Your task to perform on an android device: choose inbox layout in the gmail app Image 0: 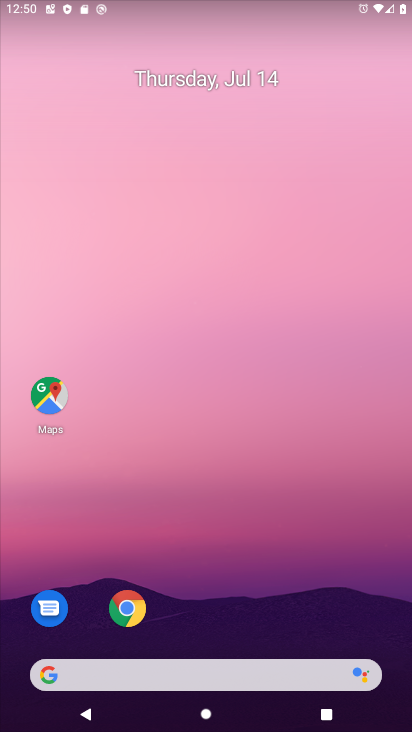
Step 0: drag from (202, 683) to (221, 203)
Your task to perform on an android device: choose inbox layout in the gmail app Image 1: 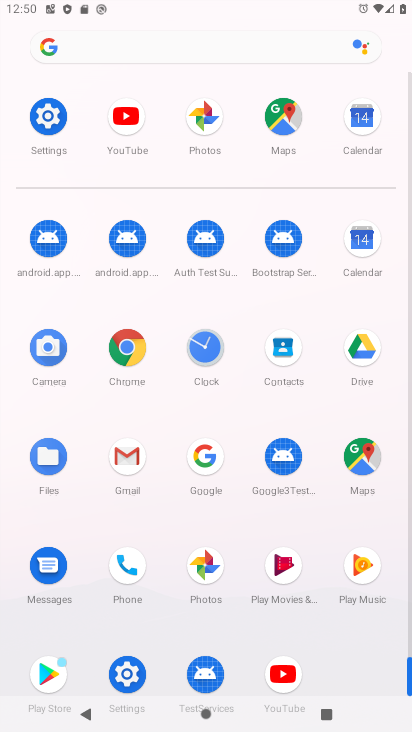
Step 1: click (128, 455)
Your task to perform on an android device: choose inbox layout in the gmail app Image 2: 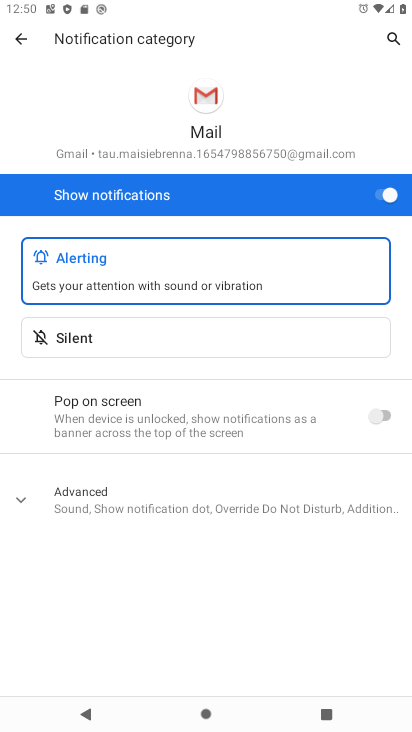
Step 2: press back button
Your task to perform on an android device: choose inbox layout in the gmail app Image 3: 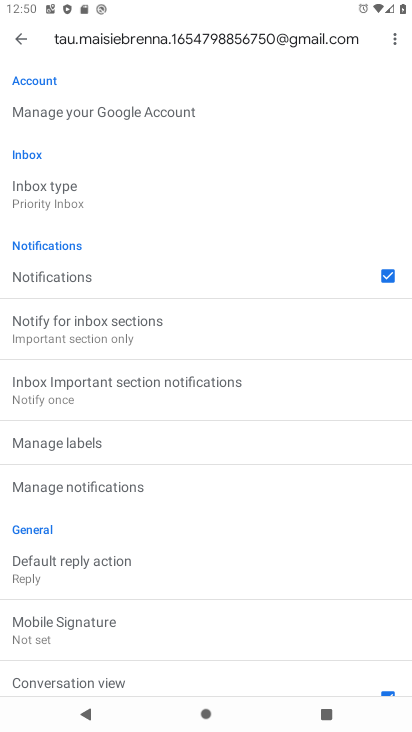
Step 3: click (50, 192)
Your task to perform on an android device: choose inbox layout in the gmail app Image 4: 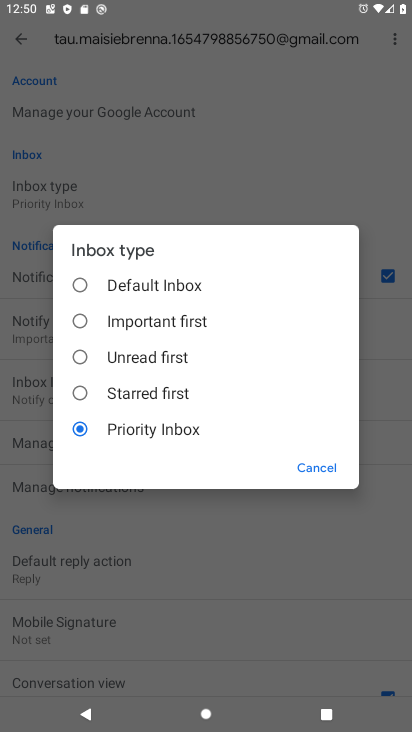
Step 4: click (83, 396)
Your task to perform on an android device: choose inbox layout in the gmail app Image 5: 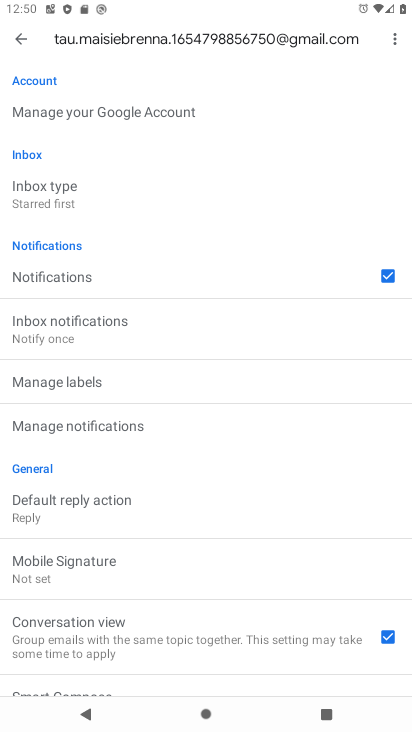
Step 5: task complete